Your task to perform on an android device: turn smart compose on in the gmail app Image 0: 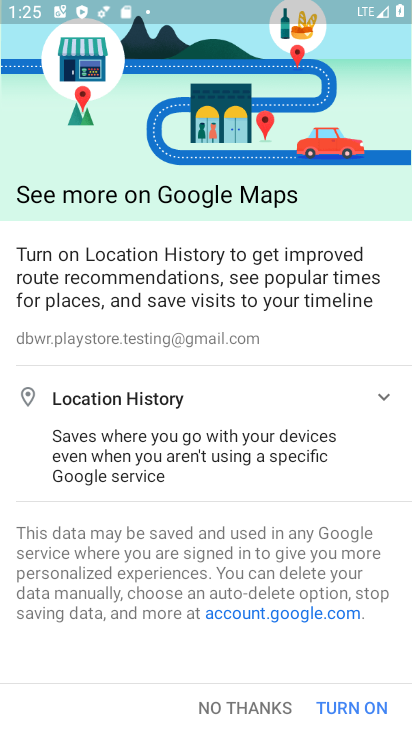
Step 0: click (240, 707)
Your task to perform on an android device: turn smart compose on in the gmail app Image 1: 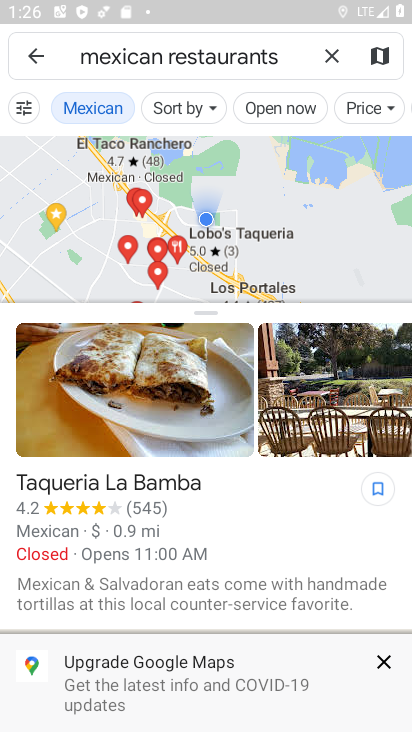
Step 1: press home button
Your task to perform on an android device: turn smart compose on in the gmail app Image 2: 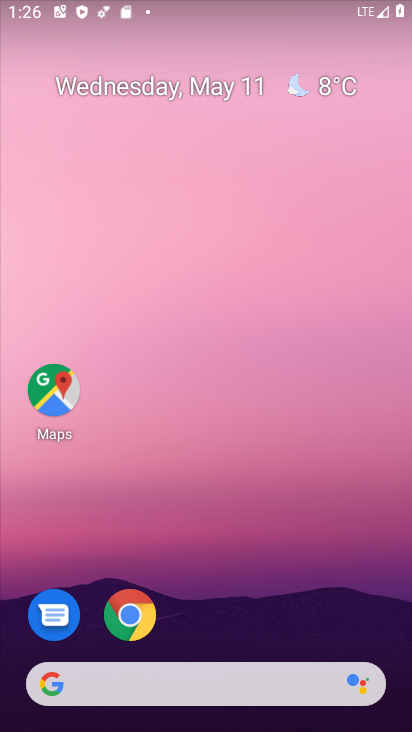
Step 2: drag from (261, 559) to (293, 49)
Your task to perform on an android device: turn smart compose on in the gmail app Image 3: 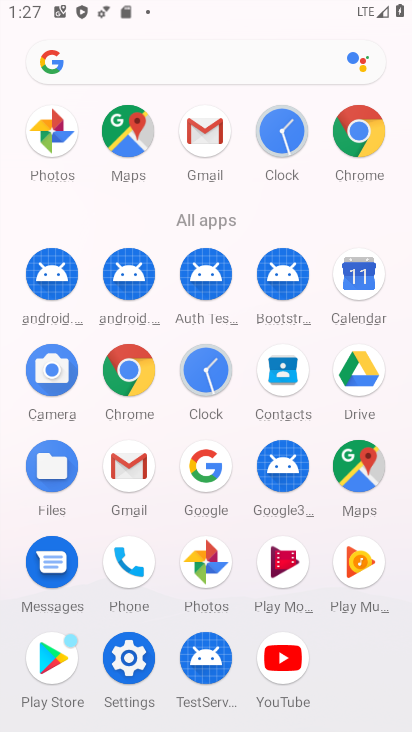
Step 3: click (208, 141)
Your task to perform on an android device: turn smart compose on in the gmail app Image 4: 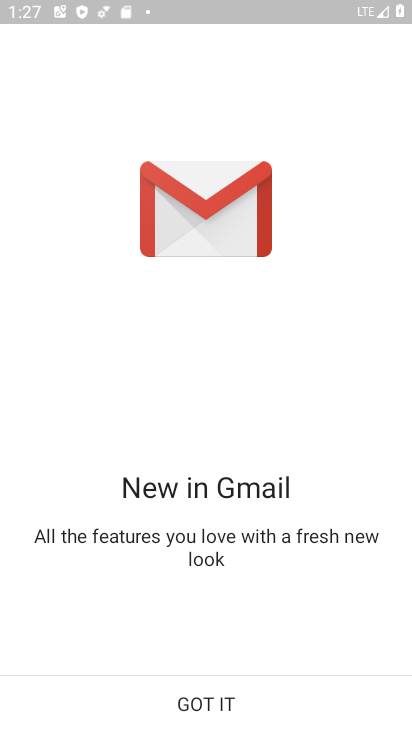
Step 4: click (229, 705)
Your task to perform on an android device: turn smart compose on in the gmail app Image 5: 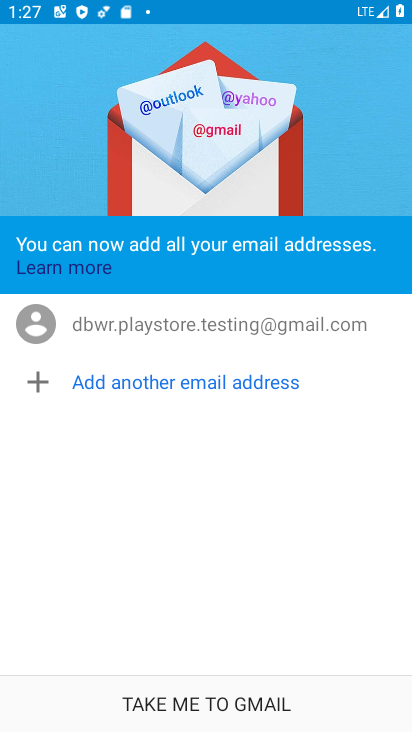
Step 5: click (250, 696)
Your task to perform on an android device: turn smart compose on in the gmail app Image 6: 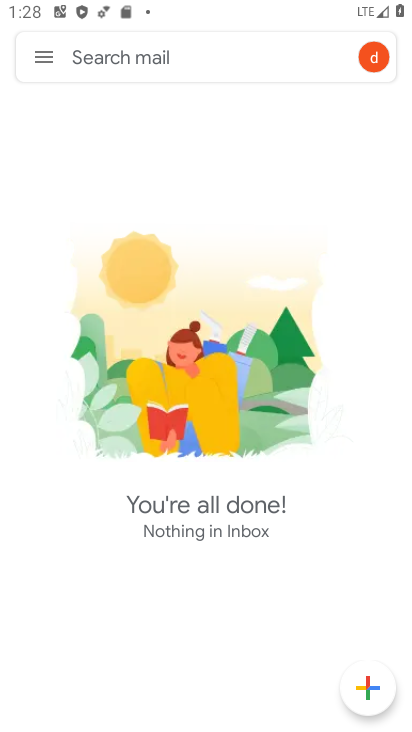
Step 6: click (37, 64)
Your task to perform on an android device: turn smart compose on in the gmail app Image 7: 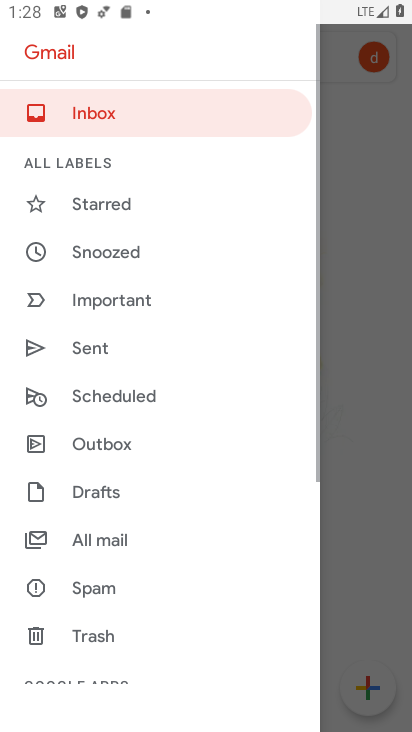
Step 7: drag from (132, 609) to (209, 124)
Your task to perform on an android device: turn smart compose on in the gmail app Image 8: 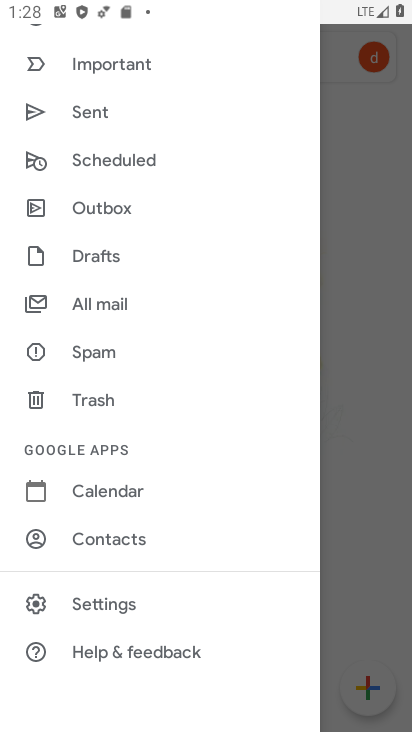
Step 8: click (141, 604)
Your task to perform on an android device: turn smart compose on in the gmail app Image 9: 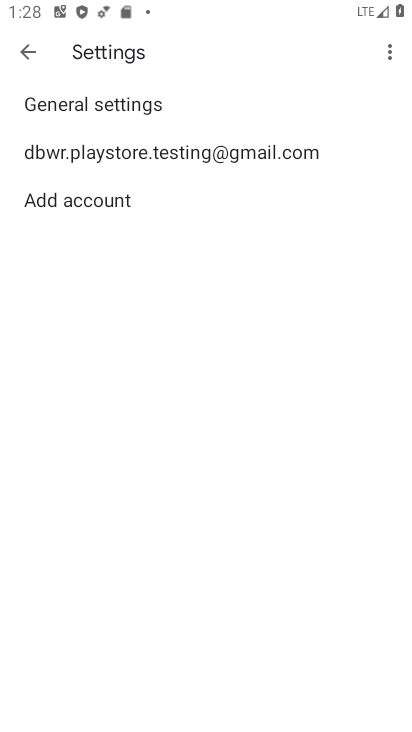
Step 9: click (280, 149)
Your task to perform on an android device: turn smart compose on in the gmail app Image 10: 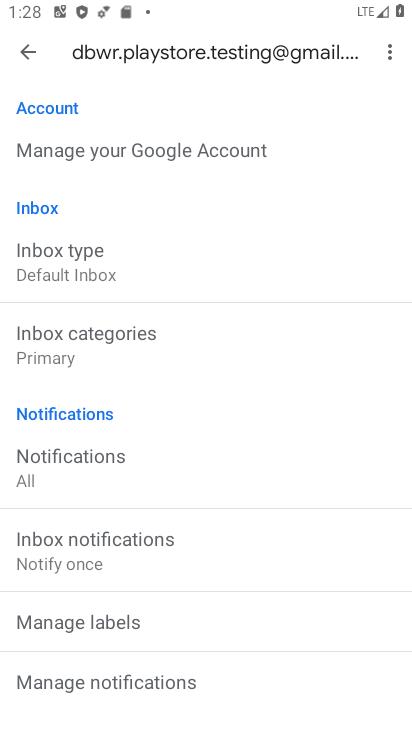
Step 10: task complete